Your task to perform on an android device: set default search engine in the chrome app Image 0: 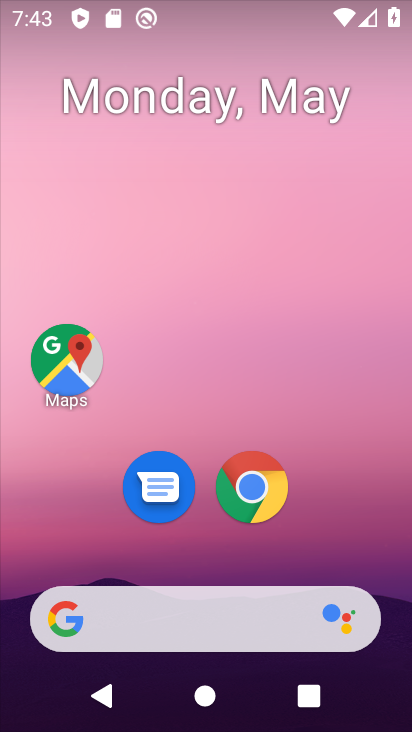
Step 0: press home button
Your task to perform on an android device: set default search engine in the chrome app Image 1: 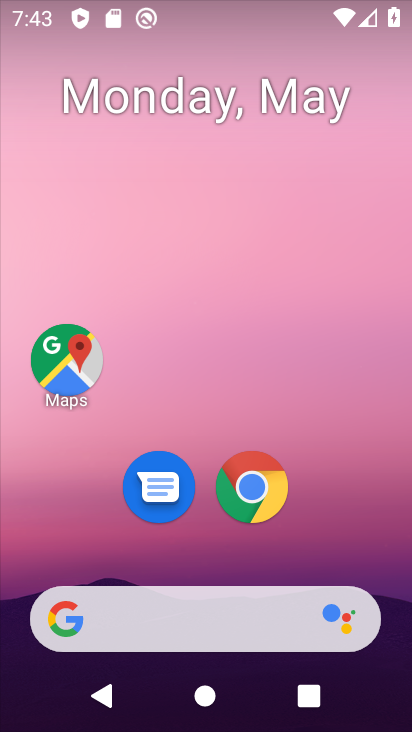
Step 1: click (253, 490)
Your task to perform on an android device: set default search engine in the chrome app Image 2: 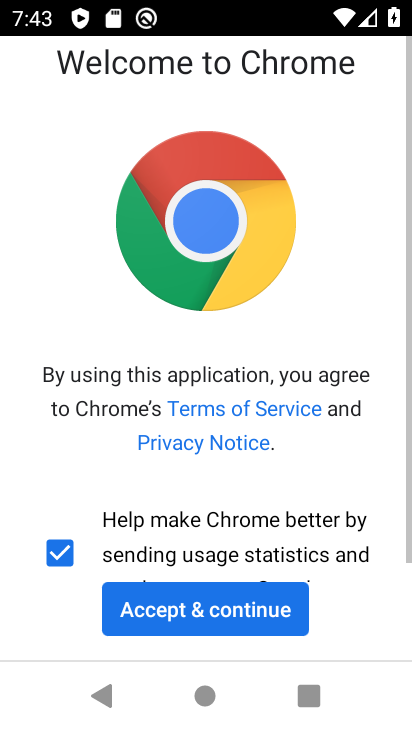
Step 2: click (191, 606)
Your task to perform on an android device: set default search engine in the chrome app Image 3: 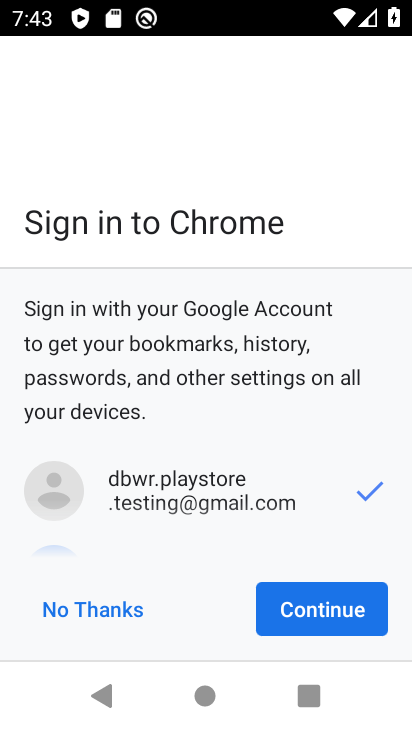
Step 3: click (330, 618)
Your task to perform on an android device: set default search engine in the chrome app Image 4: 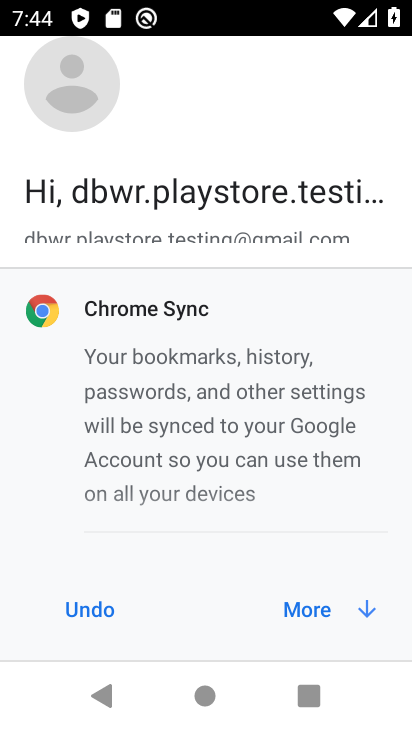
Step 4: click (310, 612)
Your task to perform on an android device: set default search engine in the chrome app Image 5: 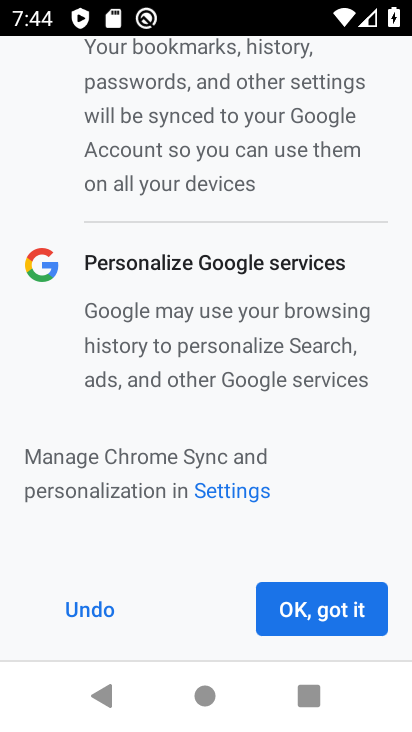
Step 5: click (310, 612)
Your task to perform on an android device: set default search engine in the chrome app Image 6: 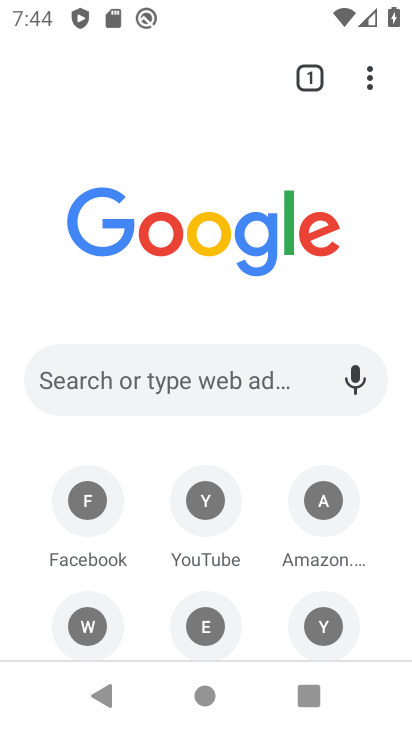
Step 6: drag from (378, 80) to (110, 554)
Your task to perform on an android device: set default search engine in the chrome app Image 7: 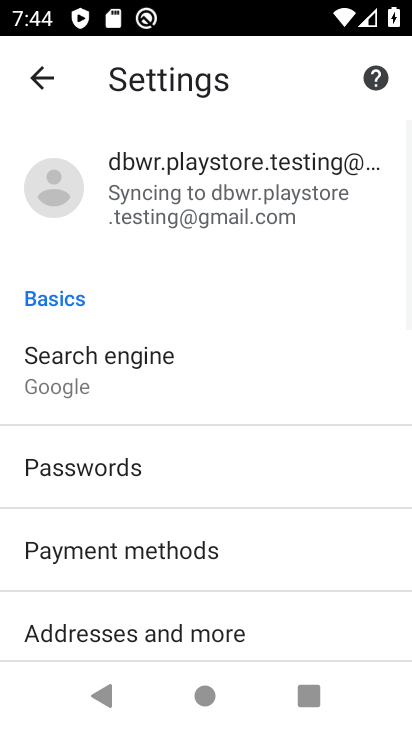
Step 7: click (68, 360)
Your task to perform on an android device: set default search engine in the chrome app Image 8: 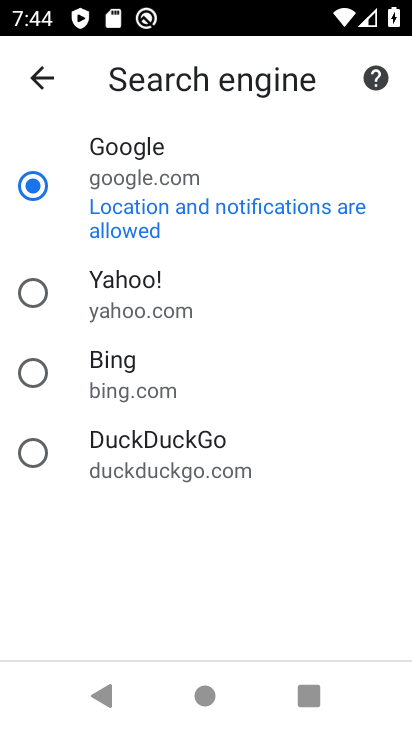
Step 8: click (36, 297)
Your task to perform on an android device: set default search engine in the chrome app Image 9: 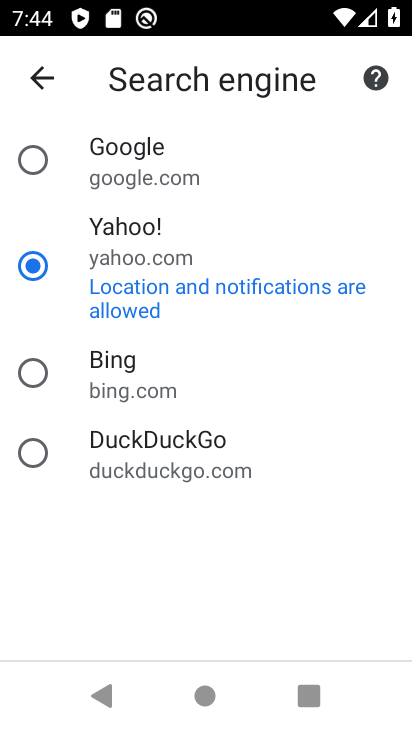
Step 9: task complete